Your task to perform on an android device: snooze an email in the gmail app Image 0: 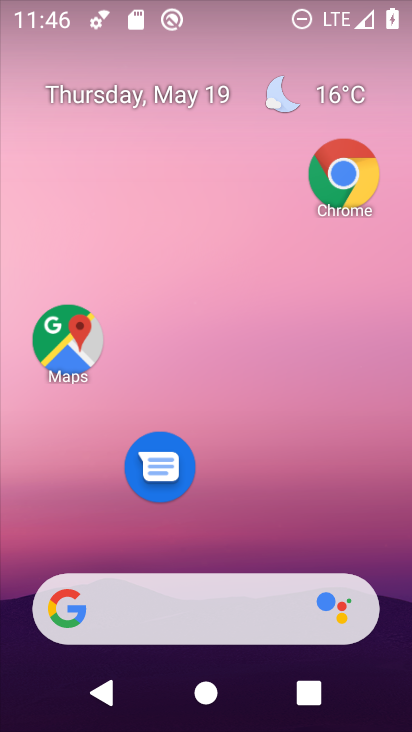
Step 0: drag from (287, 547) to (232, 257)
Your task to perform on an android device: snooze an email in the gmail app Image 1: 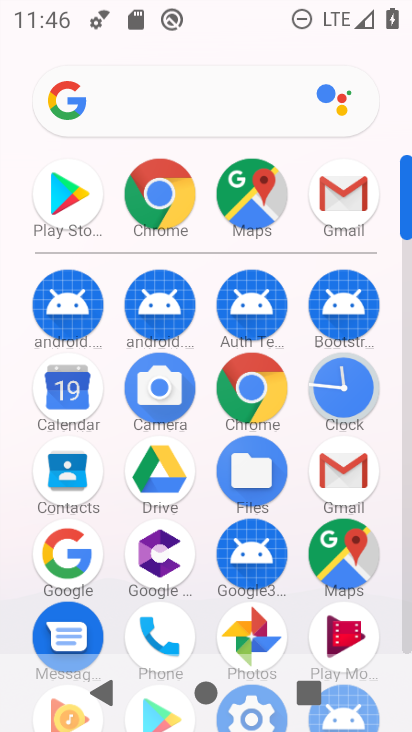
Step 1: click (344, 482)
Your task to perform on an android device: snooze an email in the gmail app Image 2: 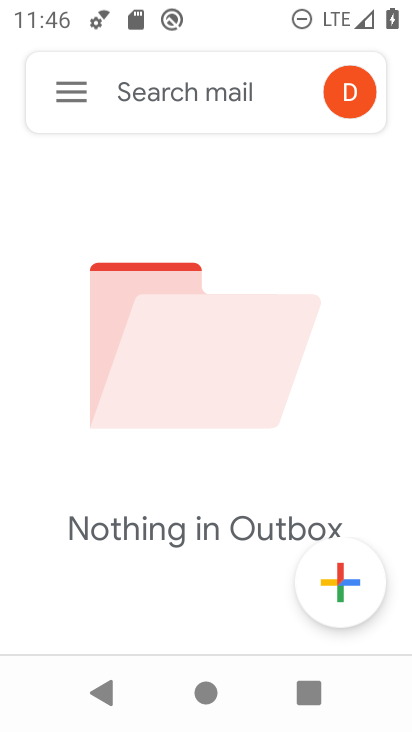
Step 2: click (53, 87)
Your task to perform on an android device: snooze an email in the gmail app Image 3: 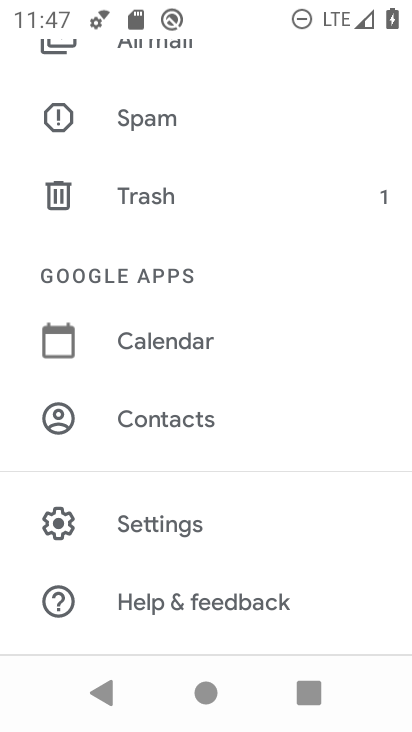
Step 3: drag from (229, 175) to (214, 584)
Your task to perform on an android device: snooze an email in the gmail app Image 4: 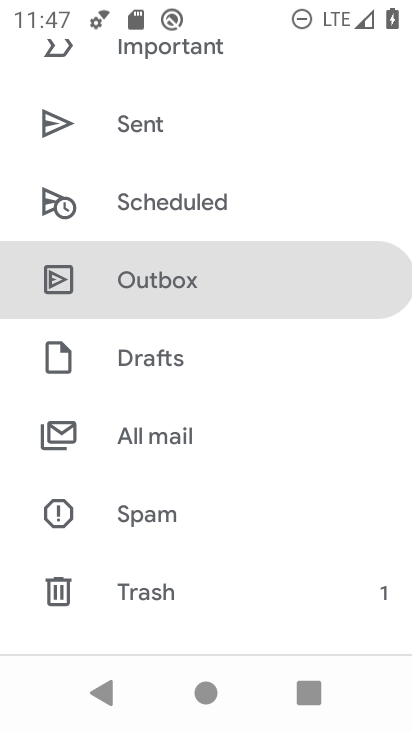
Step 4: drag from (172, 153) to (128, 564)
Your task to perform on an android device: snooze an email in the gmail app Image 5: 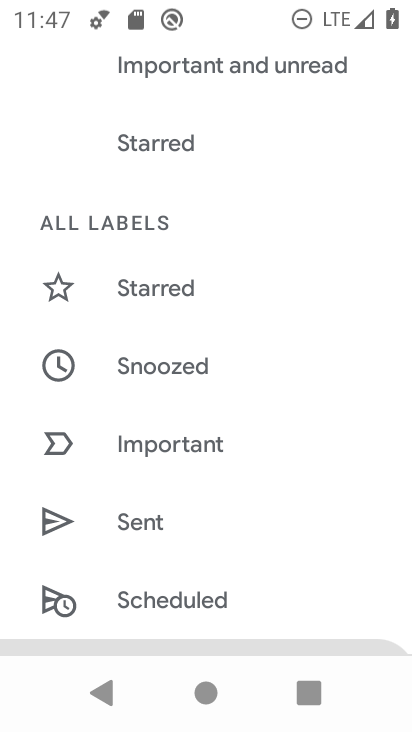
Step 5: drag from (221, 241) to (241, 403)
Your task to perform on an android device: snooze an email in the gmail app Image 6: 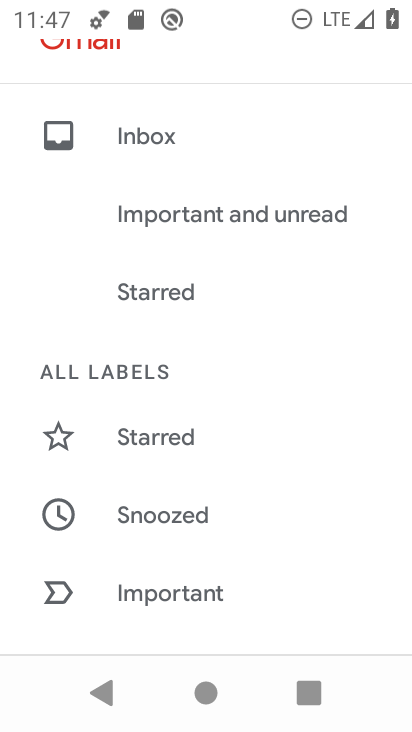
Step 6: click (241, 416)
Your task to perform on an android device: snooze an email in the gmail app Image 7: 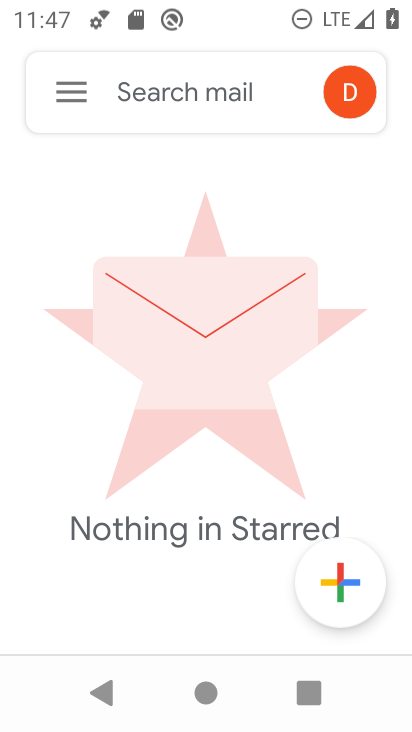
Step 7: press back button
Your task to perform on an android device: snooze an email in the gmail app Image 8: 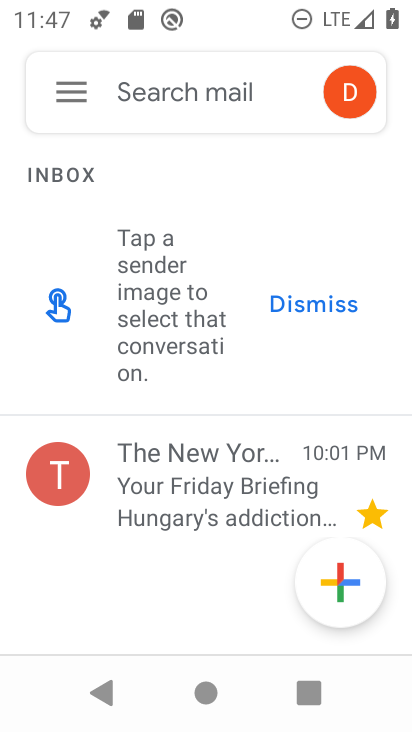
Step 8: click (71, 97)
Your task to perform on an android device: snooze an email in the gmail app Image 9: 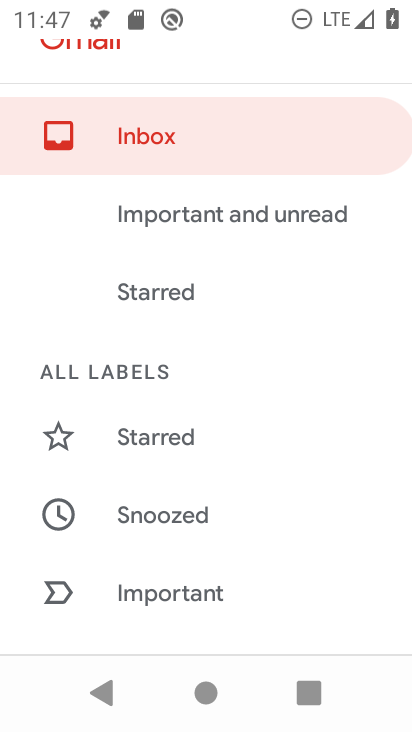
Step 9: click (177, 531)
Your task to perform on an android device: snooze an email in the gmail app Image 10: 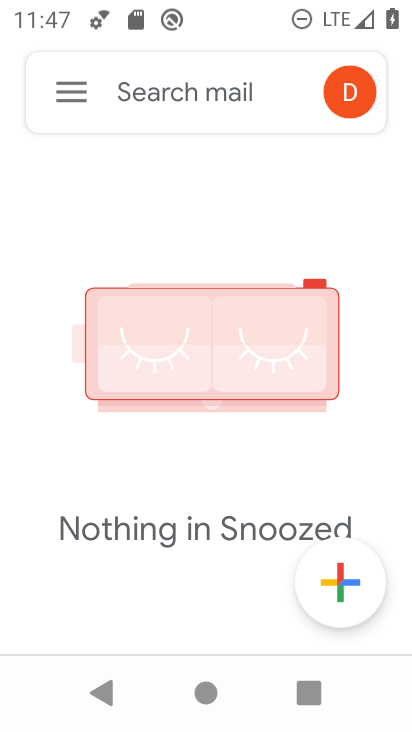
Step 10: task complete